Your task to perform on an android device: When is my next meeting? Image 0: 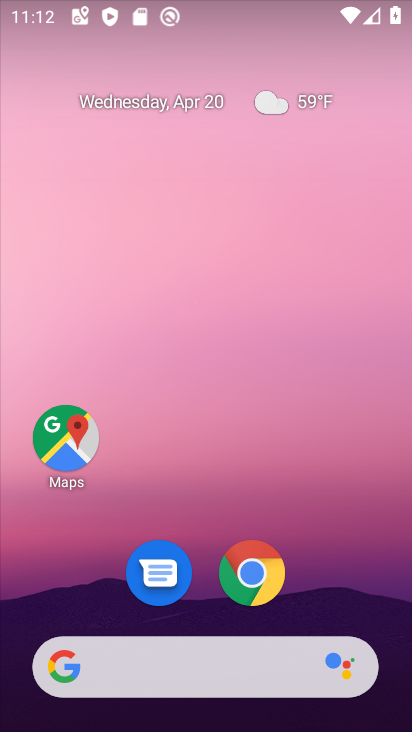
Step 0: drag from (363, 585) to (347, 34)
Your task to perform on an android device: When is my next meeting? Image 1: 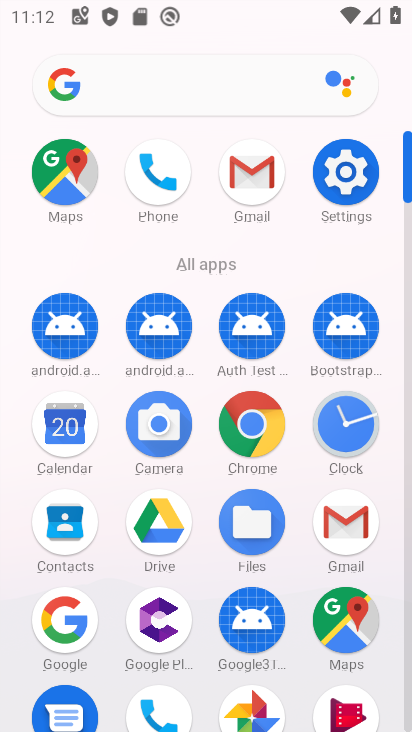
Step 1: click (67, 427)
Your task to perform on an android device: When is my next meeting? Image 2: 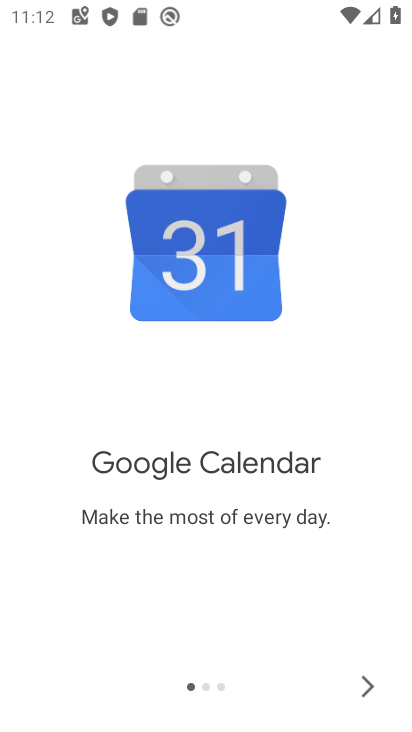
Step 2: click (368, 693)
Your task to perform on an android device: When is my next meeting? Image 3: 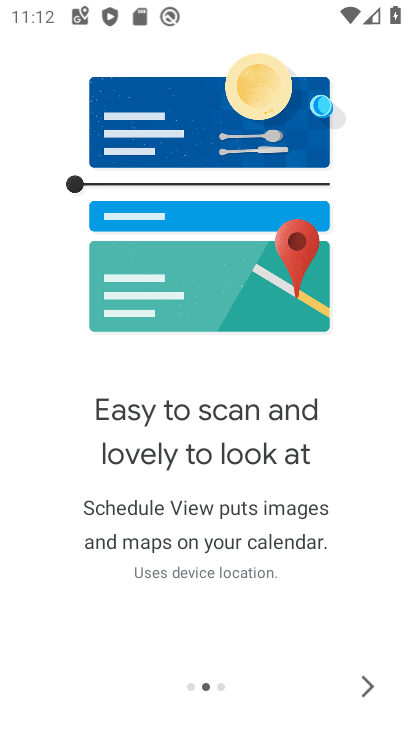
Step 3: click (368, 693)
Your task to perform on an android device: When is my next meeting? Image 4: 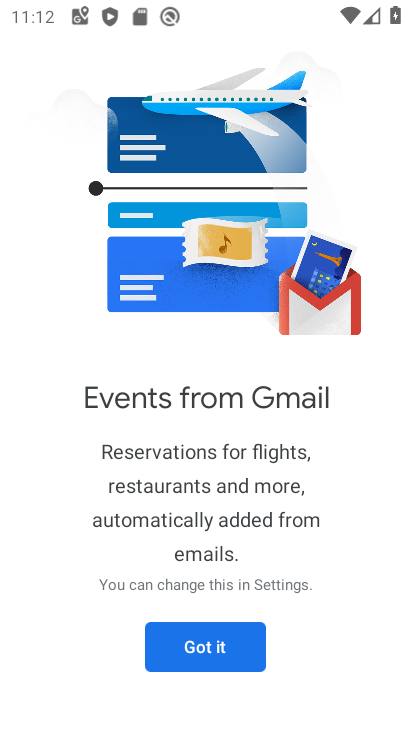
Step 4: click (208, 657)
Your task to perform on an android device: When is my next meeting? Image 5: 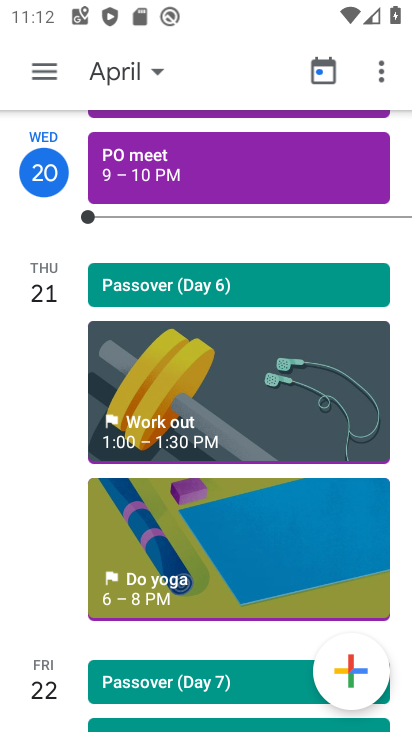
Step 5: click (159, 76)
Your task to perform on an android device: When is my next meeting? Image 6: 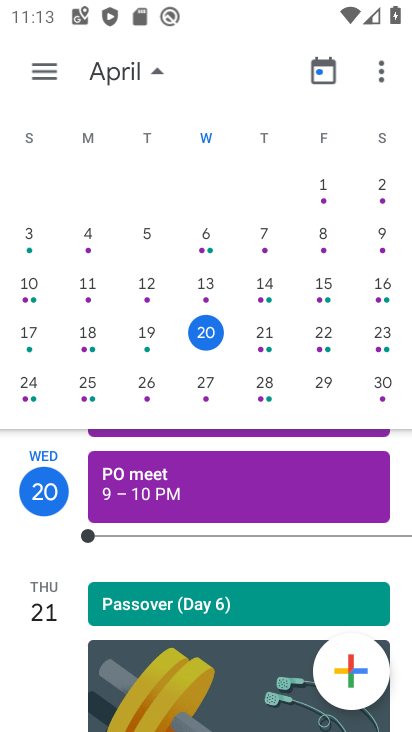
Step 6: click (154, 504)
Your task to perform on an android device: When is my next meeting? Image 7: 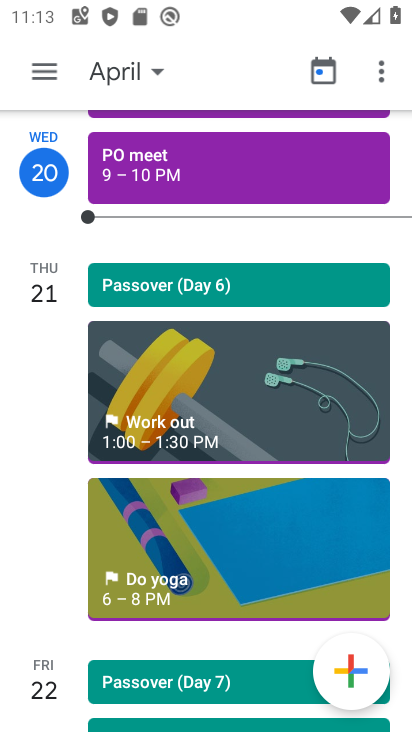
Step 7: click (156, 164)
Your task to perform on an android device: When is my next meeting? Image 8: 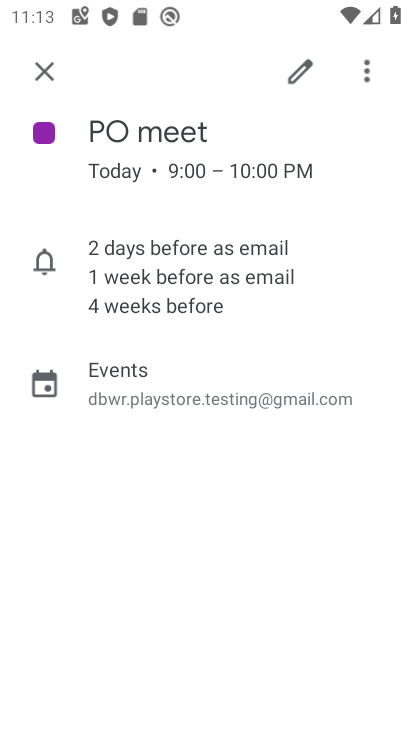
Step 8: task complete